Your task to perform on an android device: change the clock display to show seconds Image 0: 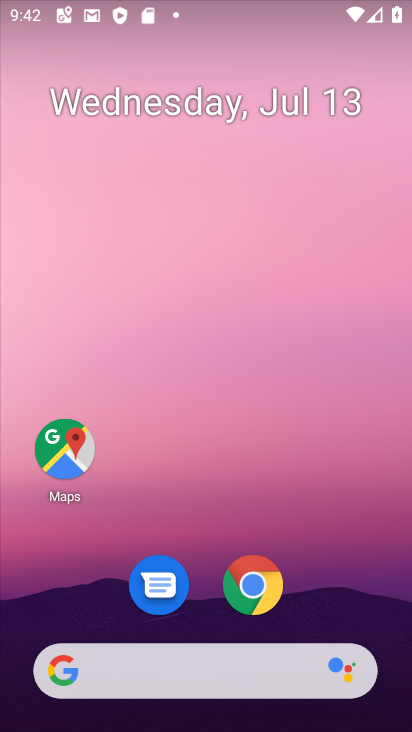
Step 0: drag from (224, 500) to (266, 11)
Your task to perform on an android device: change the clock display to show seconds Image 1: 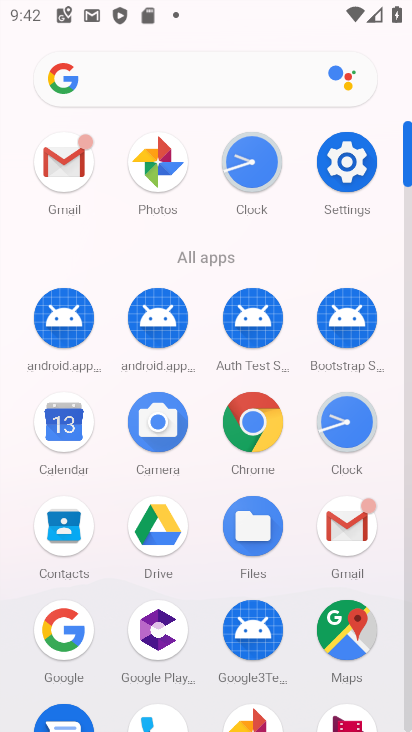
Step 1: click (257, 162)
Your task to perform on an android device: change the clock display to show seconds Image 2: 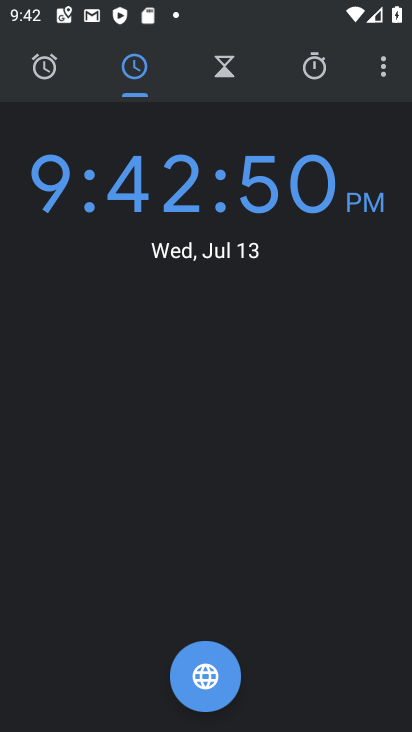
Step 2: click (383, 74)
Your task to perform on an android device: change the clock display to show seconds Image 3: 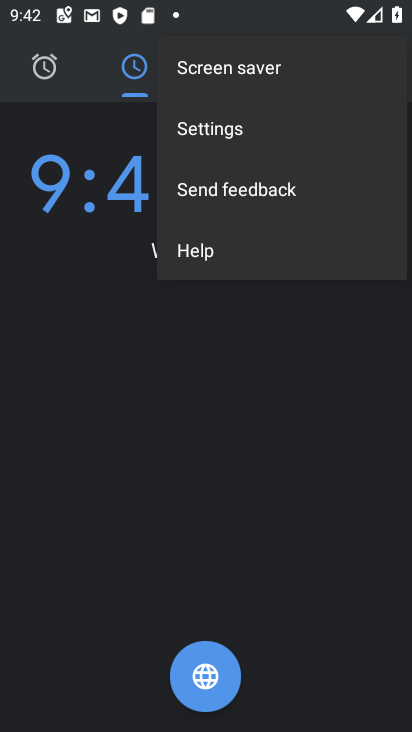
Step 3: click (293, 132)
Your task to perform on an android device: change the clock display to show seconds Image 4: 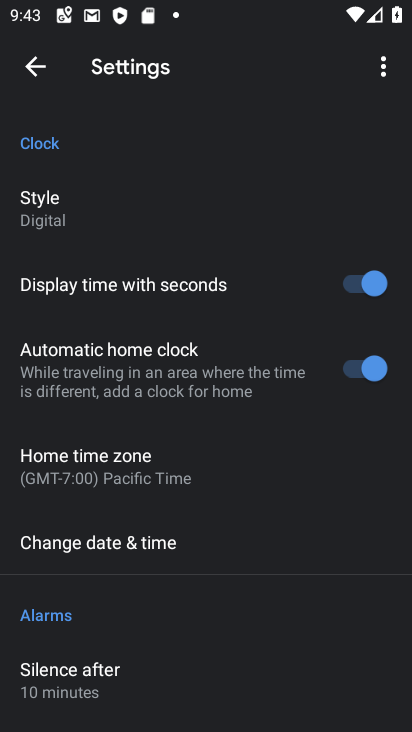
Step 4: click (40, 72)
Your task to perform on an android device: change the clock display to show seconds Image 5: 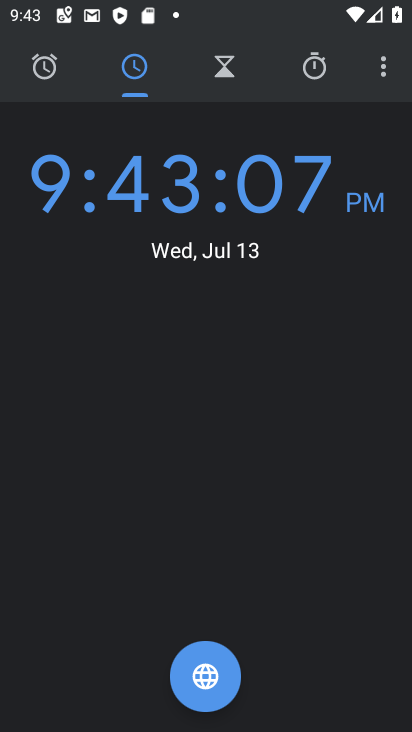
Step 5: task complete